Your task to perform on an android device: What is the recent news? Image 0: 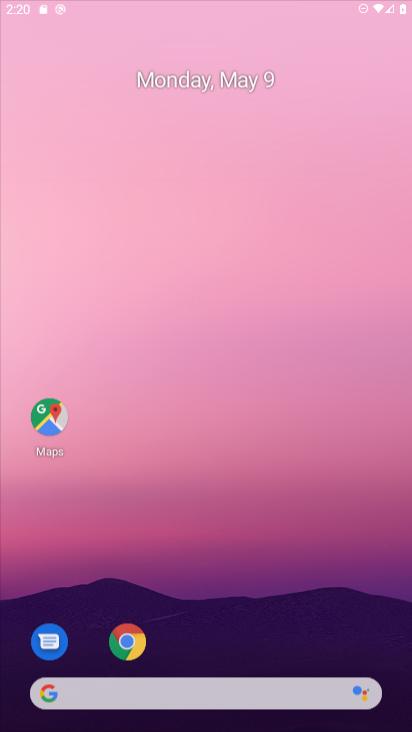
Step 0: drag from (338, 649) to (302, 308)
Your task to perform on an android device: What is the recent news? Image 1: 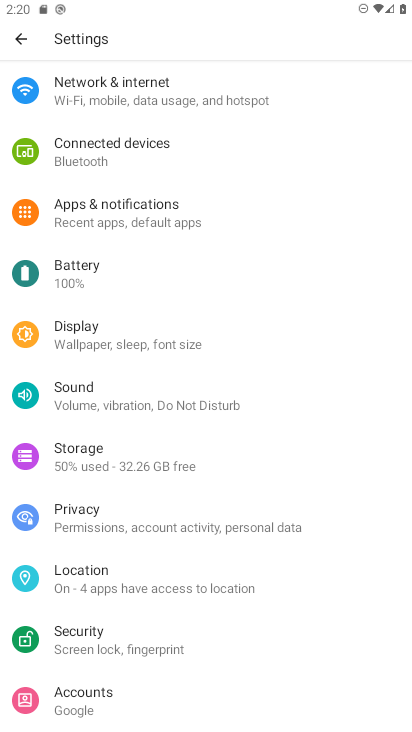
Step 1: press home button
Your task to perform on an android device: What is the recent news? Image 2: 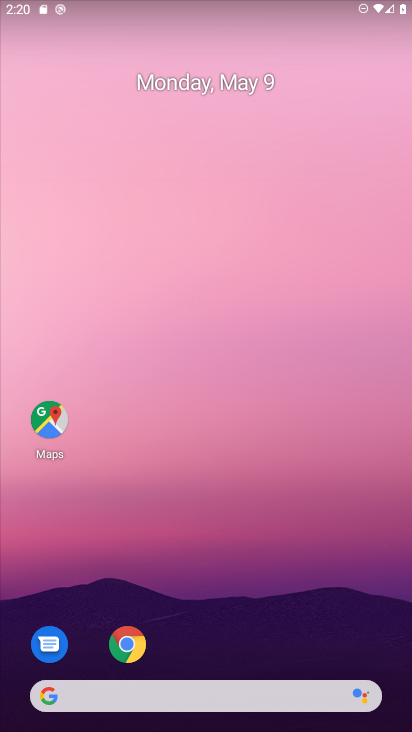
Step 2: drag from (191, 638) to (94, 154)
Your task to perform on an android device: What is the recent news? Image 3: 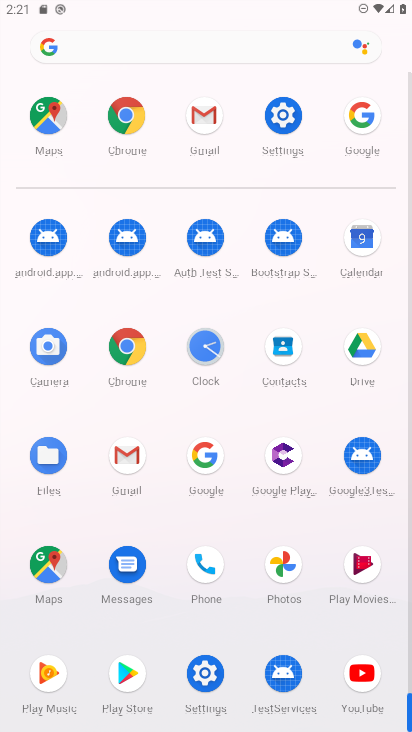
Step 3: click (193, 480)
Your task to perform on an android device: What is the recent news? Image 4: 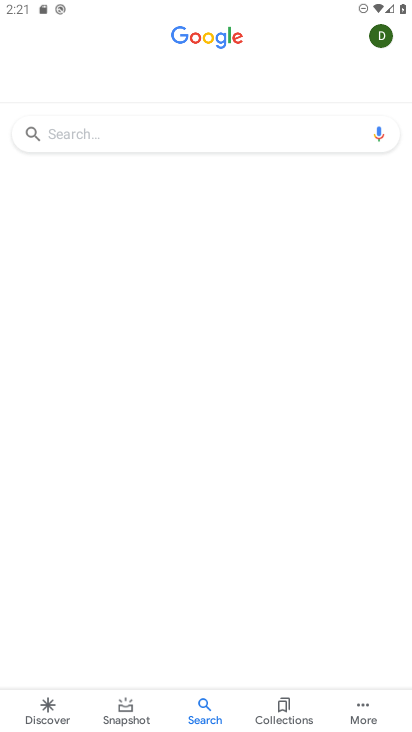
Step 4: click (170, 132)
Your task to perform on an android device: What is the recent news? Image 5: 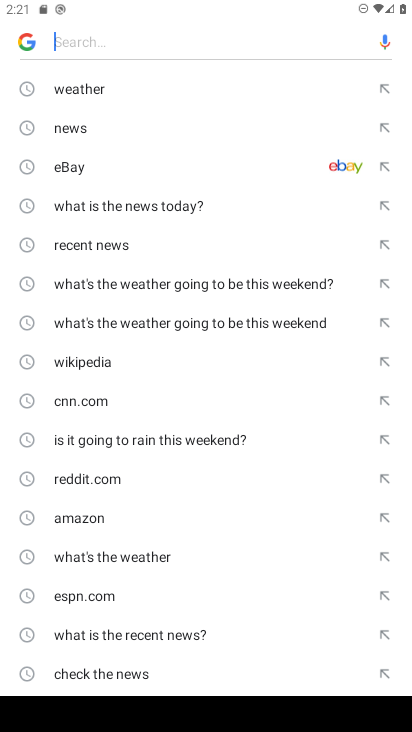
Step 5: click (106, 251)
Your task to perform on an android device: What is the recent news? Image 6: 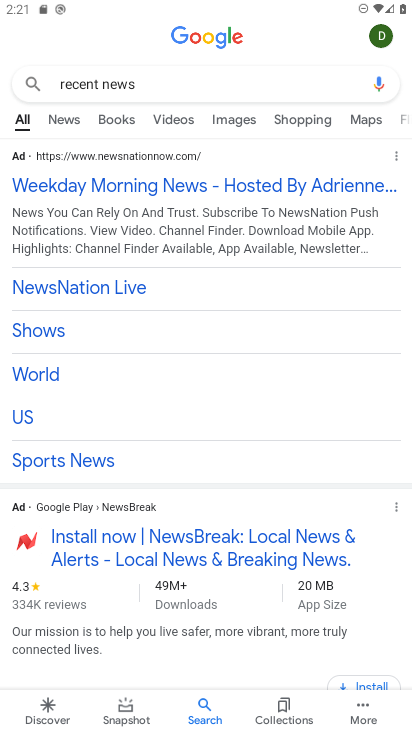
Step 6: task complete